Your task to perform on an android device: Open calendar and show me the fourth week of next month Image 0: 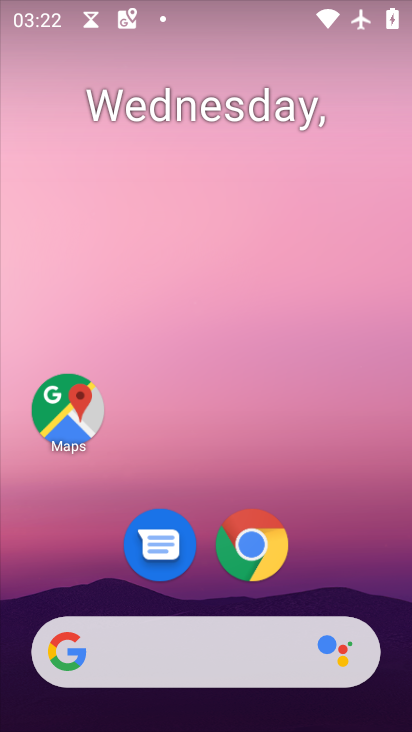
Step 0: press home button
Your task to perform on an android device: Open calendar and show me the fourth week of next month Image 1: 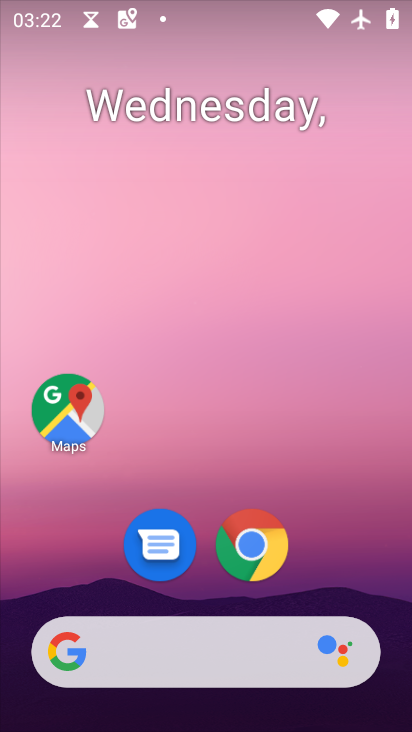
Step 1: drag from (153, 640) to (258, 168)
Your task to perform on an android device: Open calendar and show me the fourth week of next month Image 2: 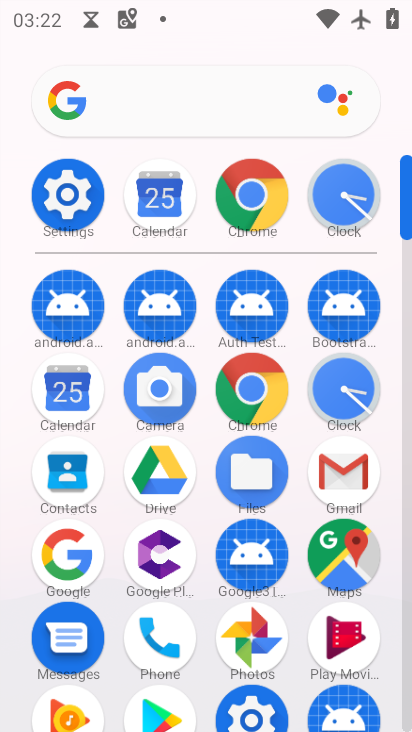
Step 2: click (67, 400)
Your task to perform on an android device: Open calendar and show me the fourth week of next month Image 3: 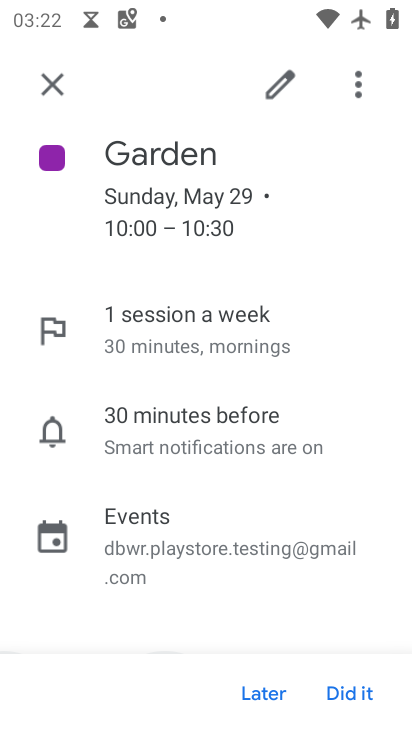
Step 3: click (54, 81)
Your task to perform on an android device: Open calendar and show me the fourth week of next month Image 4: 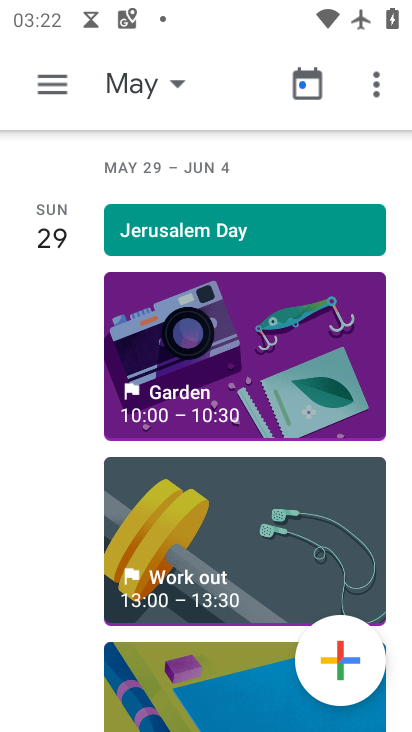
Step 4: click (54, 81)
Your task to perform on an android device: Open calendar and show me the fourth week of next month Image 5: 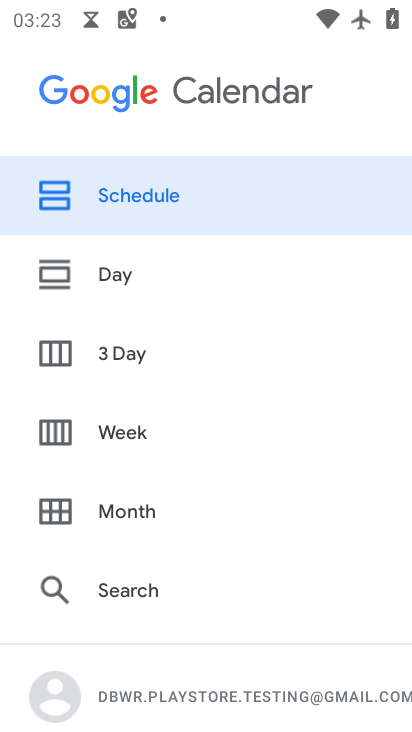
Step 5: click (191, 215)
Your task to perform on an android device: Open calendar and show me the fourth week of next month Image 6: 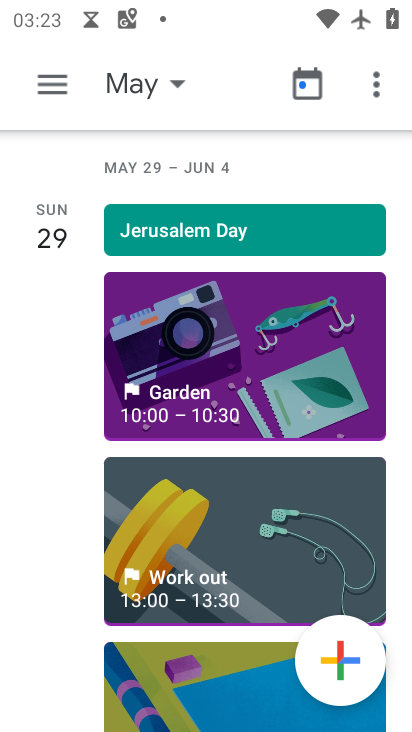
Step 6: click (132, 86)
Your task to perform on an android device: Open calendar and show me the fourth week of next month Image 7: 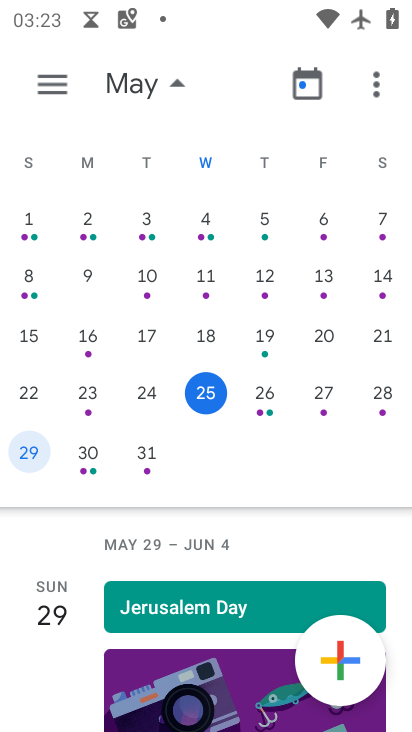
Step 7: drag from (343, 333) to (35, 296)
Your task to perform on an android device: Open calendar and show me the fourth week of next month Image 8: 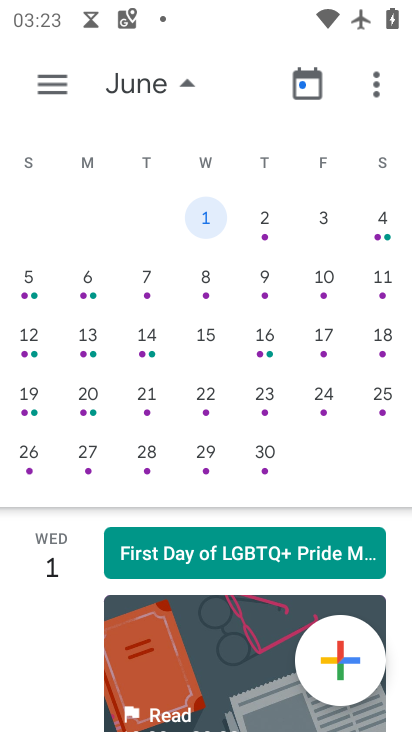
Step 8: click (32, 392)
Your task to perform on an android device: Open calendar and show me the fourth week of next month Image 9: 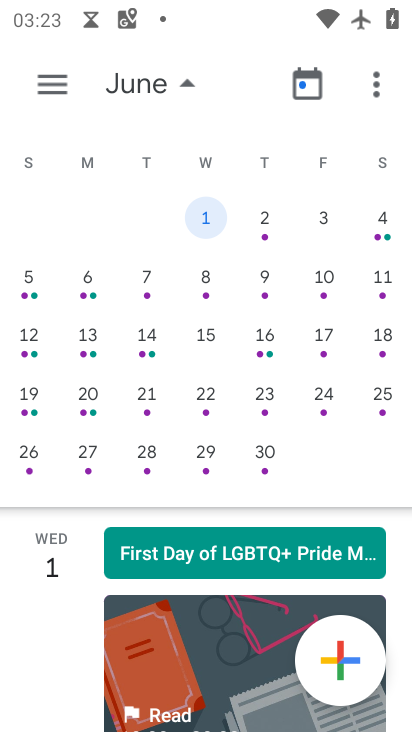
Step 9: click (32, 392)
Your task to perform on an android device: Open calendar and show me the fourth week of next month Image 10: 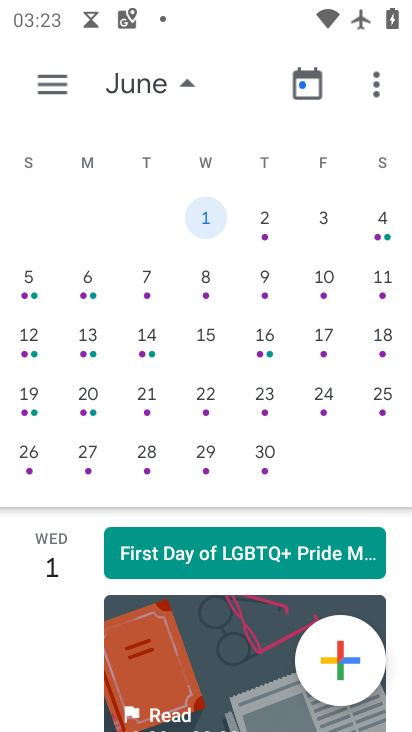
Step 10: click (37, 396)
Your task to perform on an android device: Open calendar and show me the fourth week of next month Image 11: 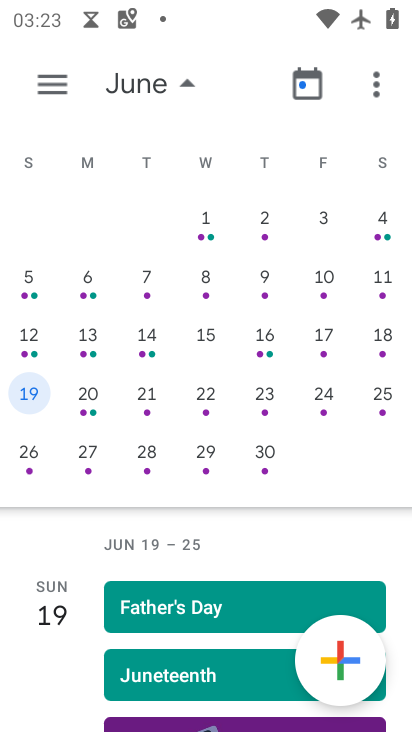
Step 11: click (50, 84)
Your task to perform on an android device: Open calendar and show me the fourth week of next month Image 12: 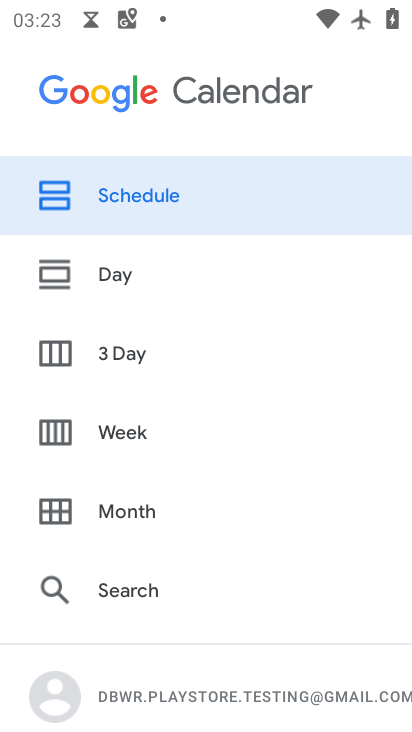
Step 12: click (105, 429)
Your task to perform on an android device: Open calendar and show me the fourth week of next month Image 13: 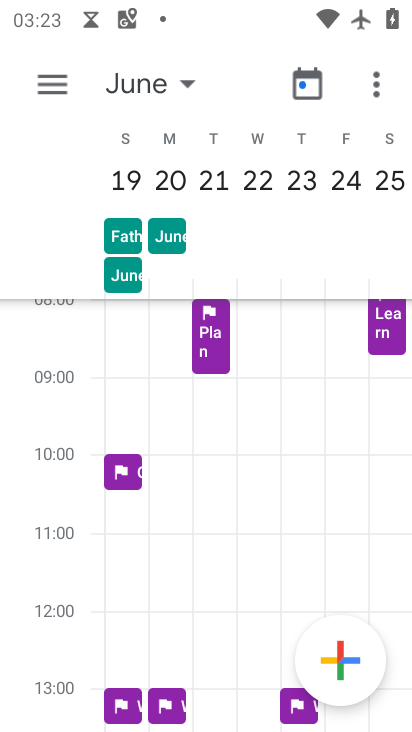
Step 13: task complete